Your task to perform on an android device: visit the assistant section in the google photos Image 0: 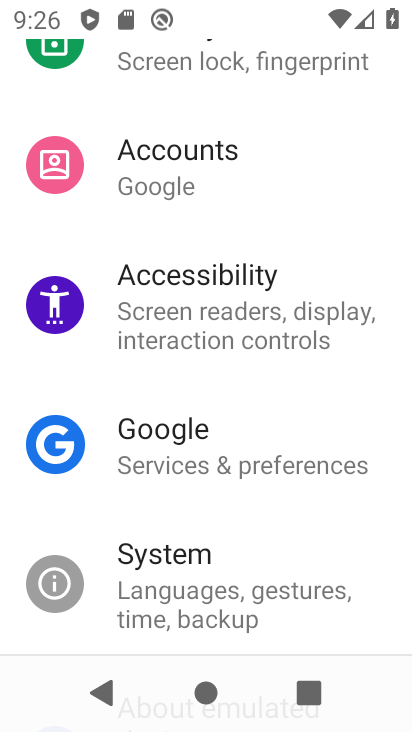
Step 0: press home button
Your task to perform on an android device: visit the assistant section in the google photos Image 1: 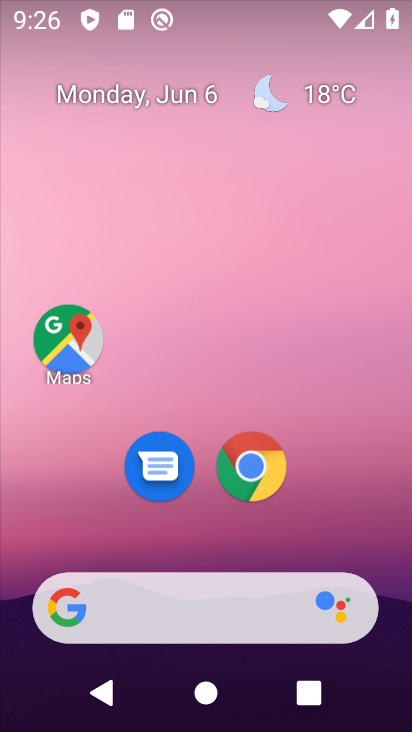
Step 1: drag from (198, 554) to (187, 94)
Your task to perform on an android device: visit the assistant section in the google photos Image 2: 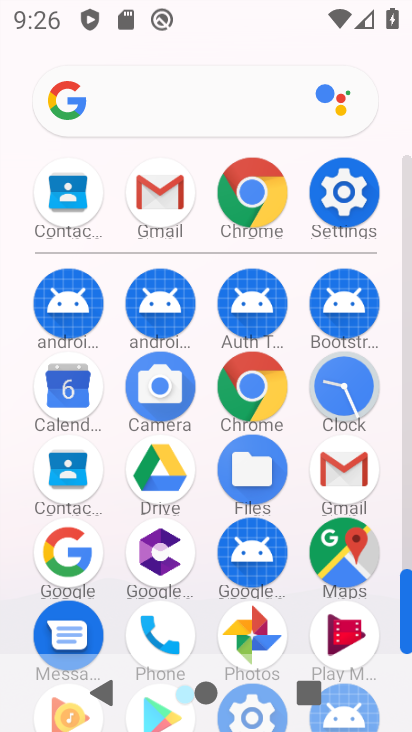
Step 2: click (236, 622)
Your task to perform on an android device: visit the assistant section in the google photos Image 3: 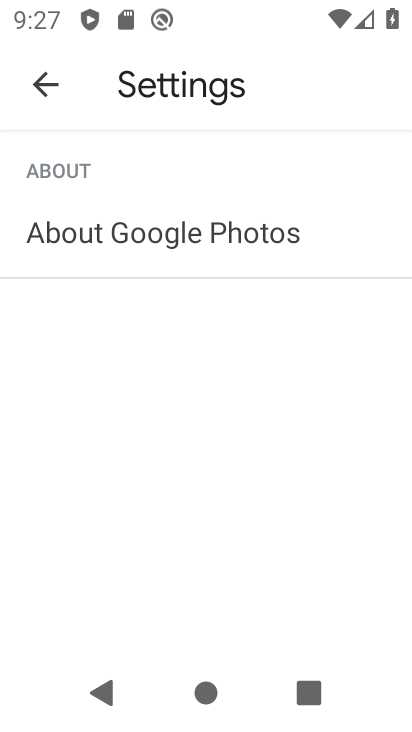
Step 3: click (39, 86)
Your task to perform on an android device: visit the assistant section in the google photos Image 4: 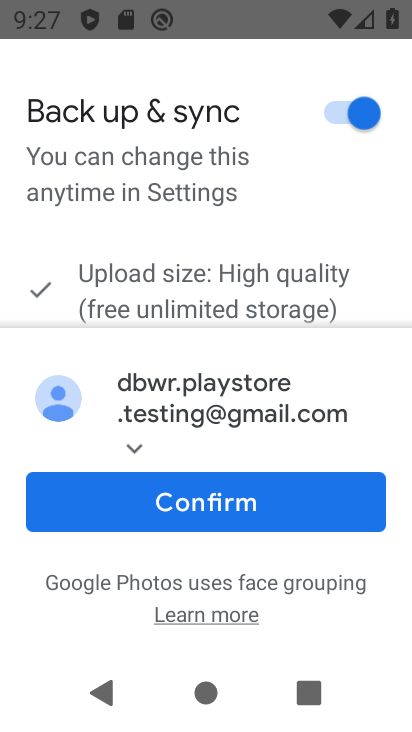
Step 4: click (189, 519)
Your task to perform on an android device: visit the assistant section in the google photos Image 5: 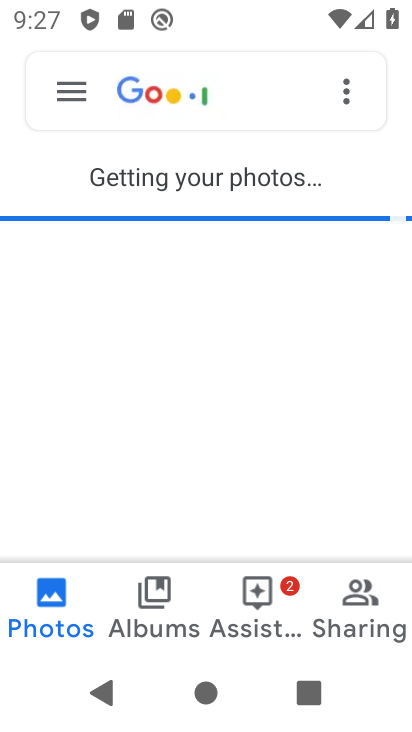
Step 5: click (245, 618)
Your task to perform on an android device: visit the assistant section in the google photos Image 6: 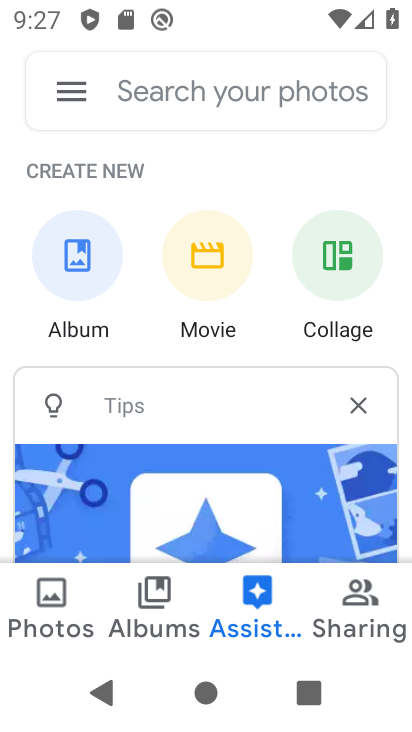
Step 6: task complete